Your task to perform on an android device: Open Google Maps and go to "Timeline" Image 0: 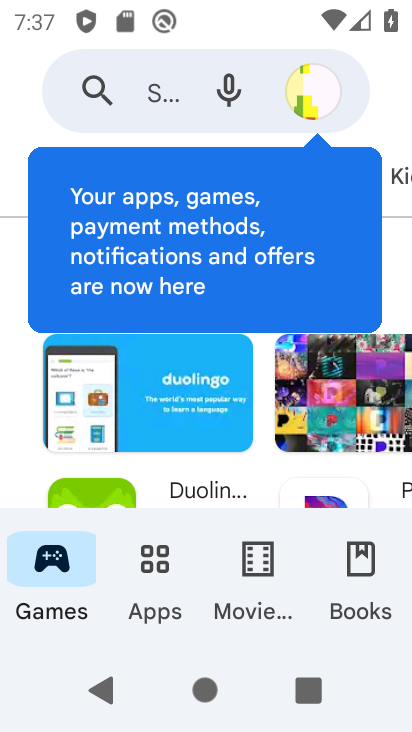
Step 0: press home button
Your task to perform on an android device: Open Google Maps and go to "Timeline" Image 1: 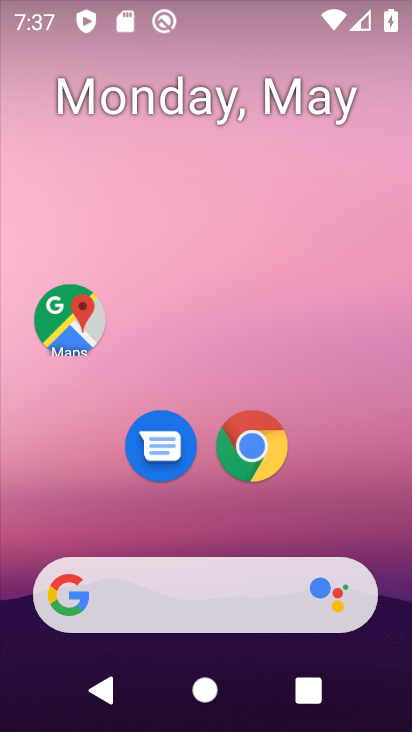
Step 1: click (61, 325)
Your task to perform on an android device: Open Google Maps and go to "Timeline" Image 2: 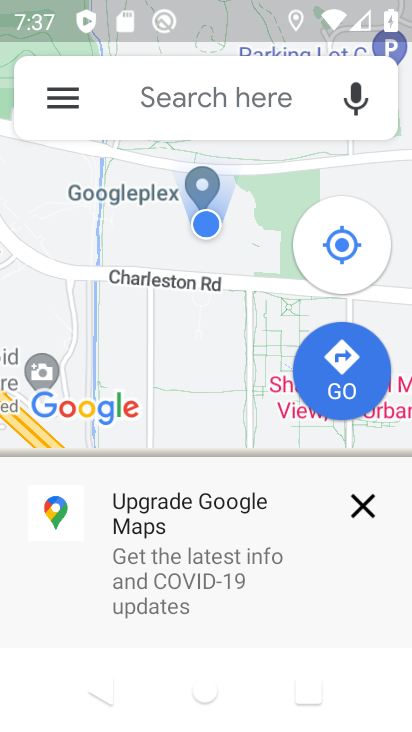
Step 2: click (50, 110)
Your task to perform on an android device: Open Google Maps and go to "Timeline" Image 3: 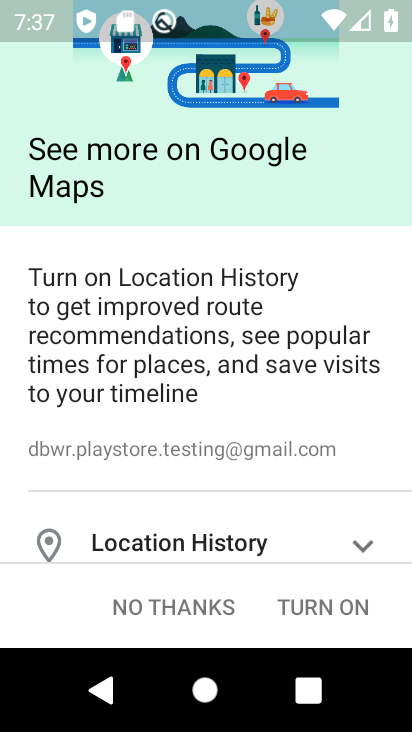
Step 3: click (189, 600)
Your task to perform on an android device: Open Google Maps and go to "Timeline" Image 4: 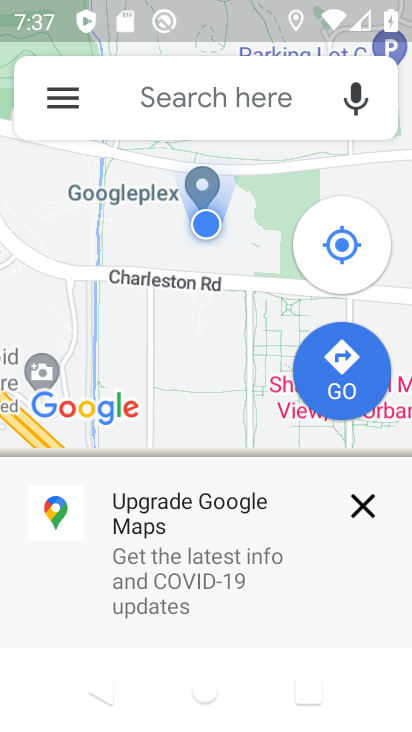
Step 4: click (64, 101)
Your task to perform on an android device: Open Google Maps and go to "Timeline" Image 5: 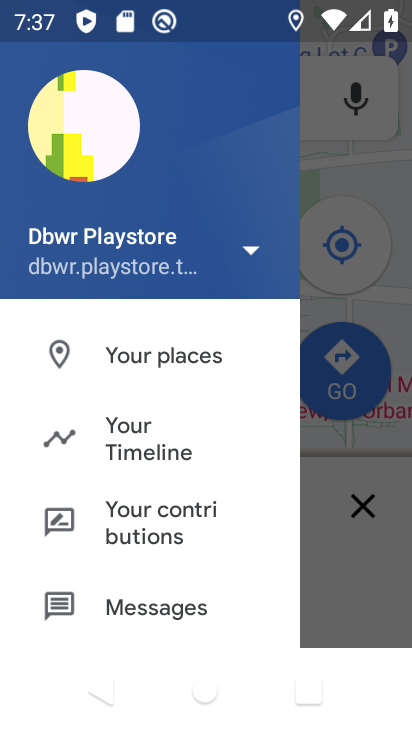
Step 5: click (119, 448)
Your task to perform on an android device: Open Google Maps and go to "Timeline" Image 6: 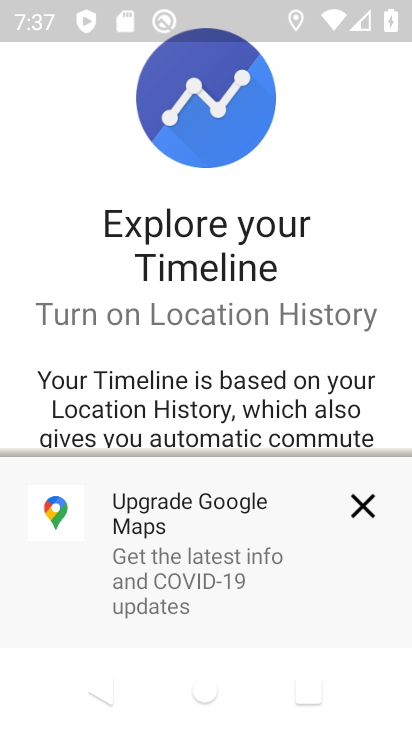
Step 6: click (356, 504)
Your task to perform on an android device: Open Google Maps and go to "Timeline" Image 7: 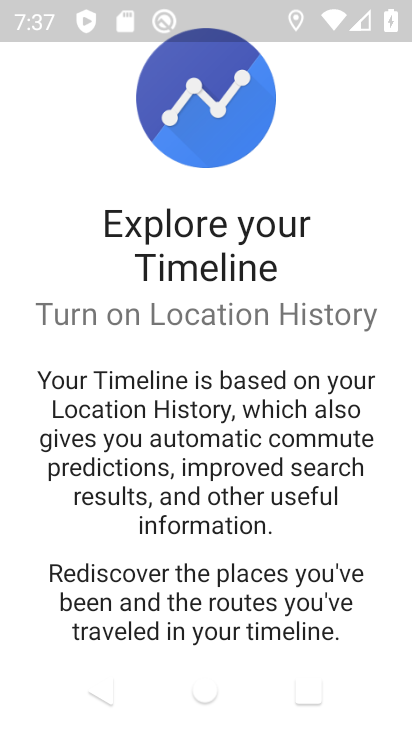
Step 7: drag from (195, 526) to (181, 121)
Your task to perform on an android device: Open Google Maps and go to "Timeline" Image 8: 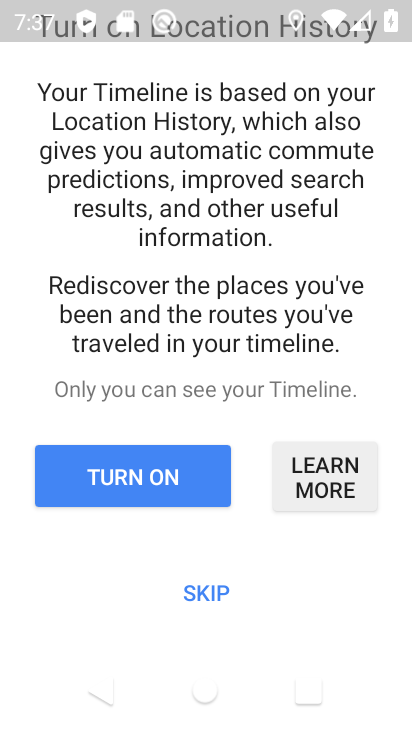
Step 8: click (208, 603)
Your task to perform on an android device: Open Google Maps and go to "Timeline" Image 9: 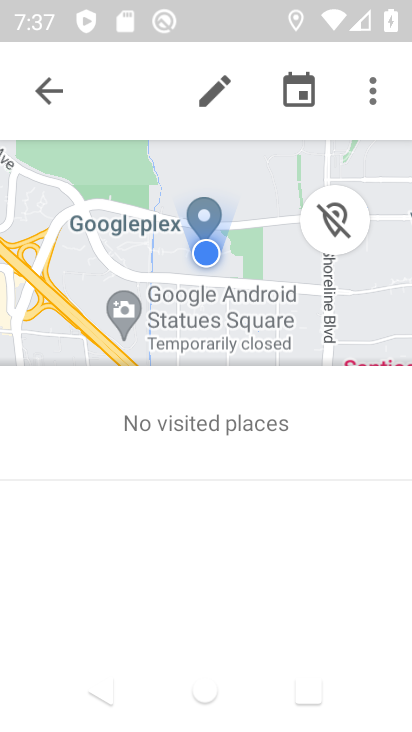
Step 9: task complete